Your task to perform on an android device: turn on airplane mode Image 0: 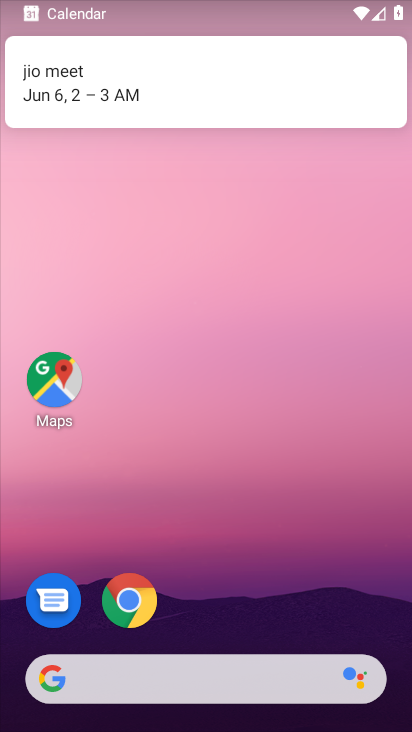
Step 0: drag from (210, 3) to (181, 604)
Your task to perform on an android device: turn on airplane mode Image 1: 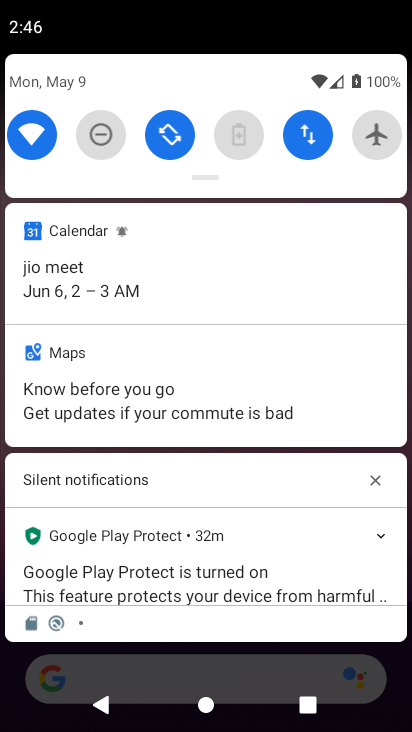
Step 1: click (371, 140)
Your task to perform on an android device: turn on airplane mode Image 2: 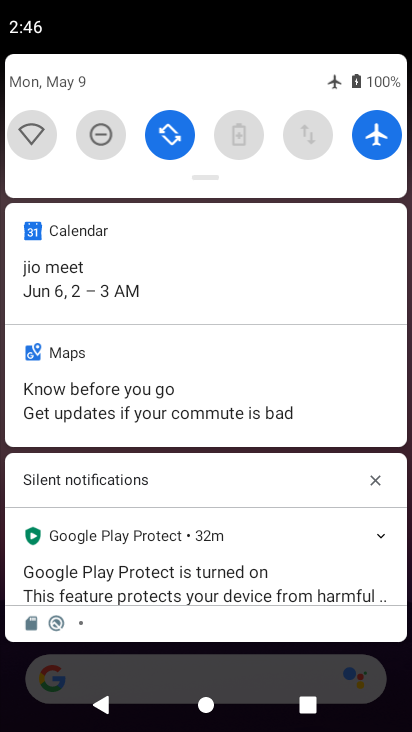
Step 2: task complete